Your task to perform on an android device: toggle translation in the chrome app Image 0: 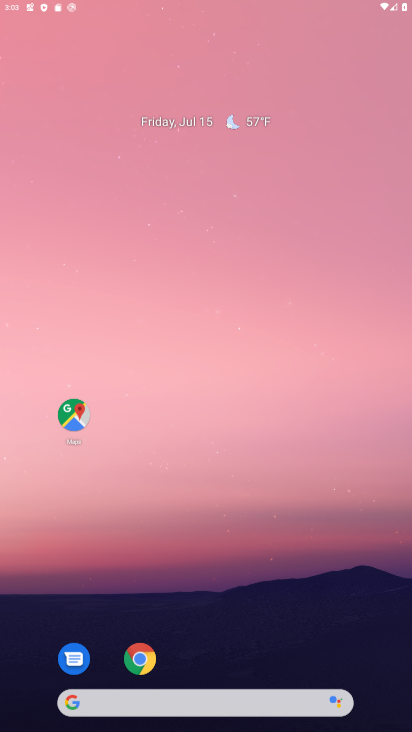
Step 0: click (377, 244)
Your task to perform on an android device: toggle translation in the chrome app Image 1: 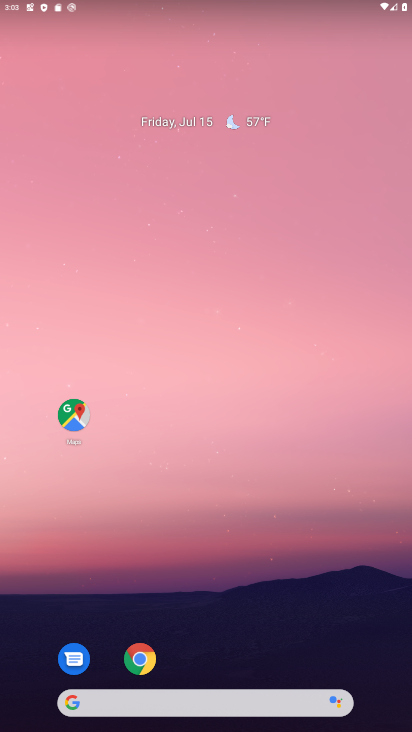
Step 1: drag from (232, 634) to (268, 17)
Your task to perform on an android device: toggle translation in the chrome app Image 2: 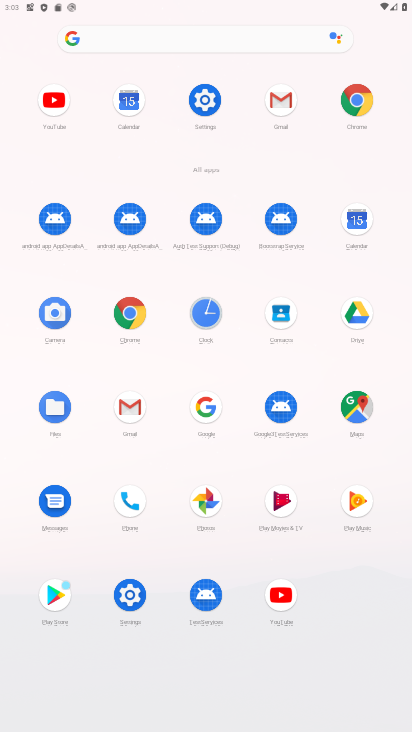
Step 2: click (129, 324)
Your task to perform on an android device: toggle translation in the chrome app Image 3: 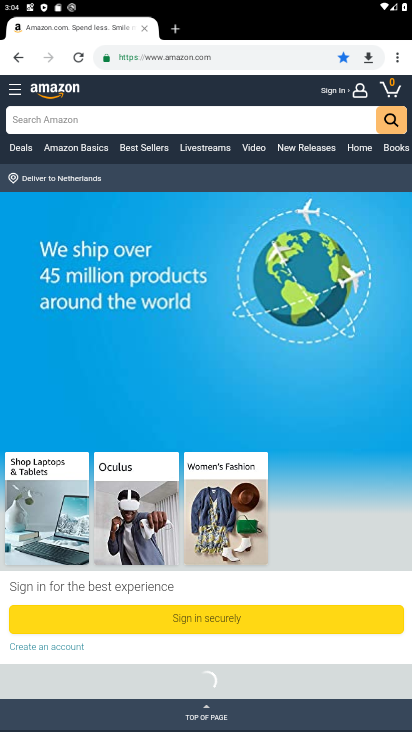
Step 3: click (396, 57)
Your task to perform on an android device: toggle translation in the chrome app Image 4: 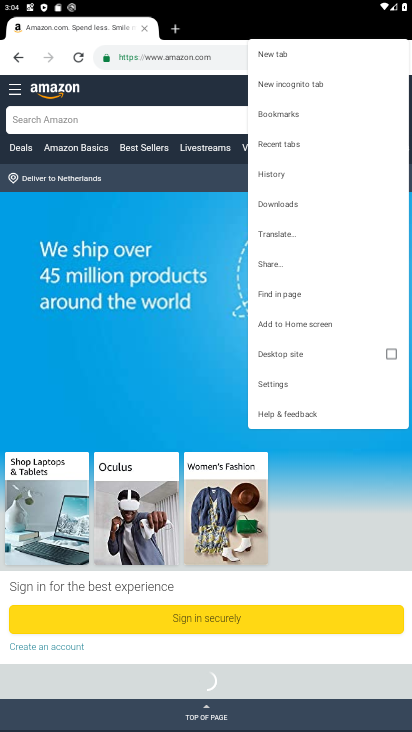
Step 4: click (280, 392)
Your task to perform on an android device: toggle translation in the chrome app Image 5: 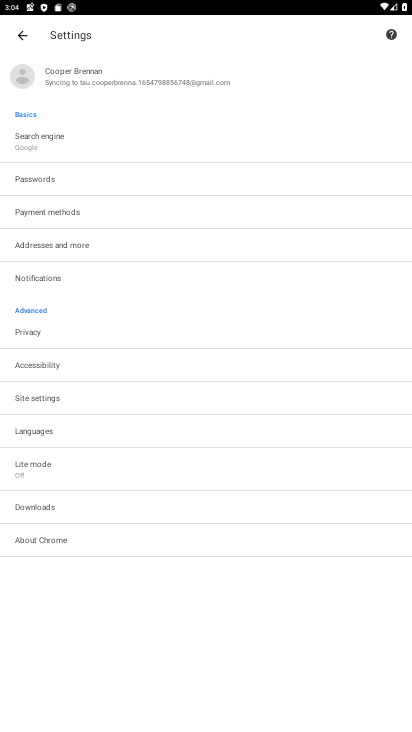
Step 5: click (52, 433)
Your task to perform on an android device: toggle translation in the chrome app Image 6: 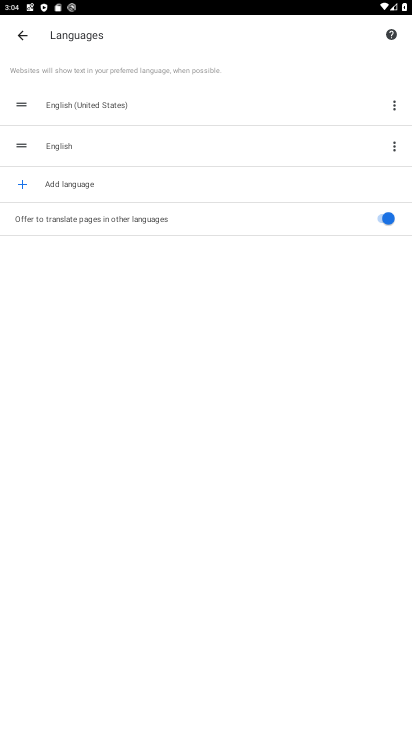
Step 6: click (385, 223)
Your task to perform on an android device: toggle translation in the chrome app Image 7: 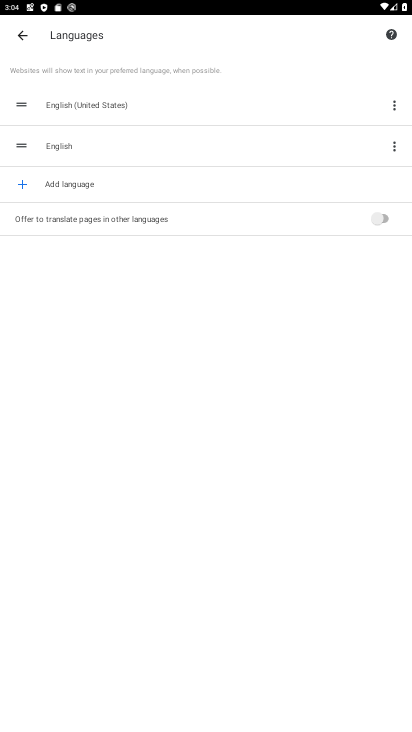
Step 7: task complete